Your task to perform on an android device: Open Chrome and go to settings Image 0: 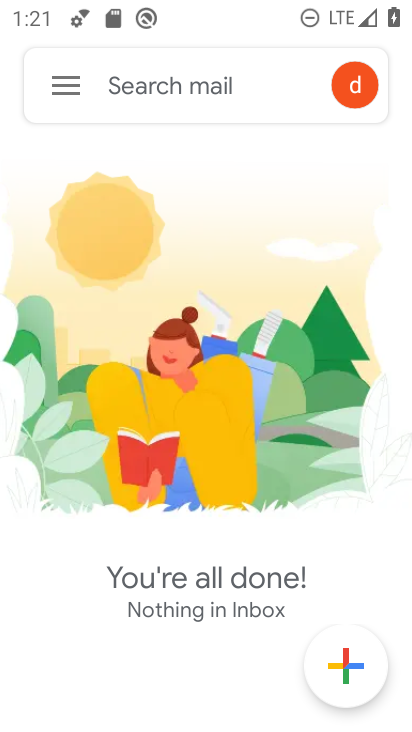
Step 0: press home button
Your task to perform on an android device: Open Chrome and go to settings Image 1: 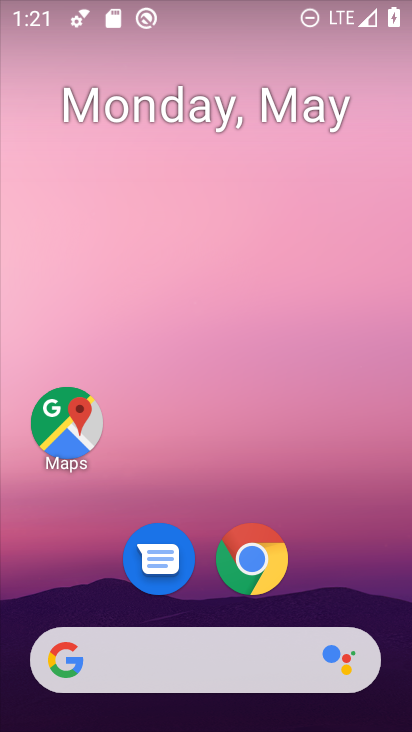
Step 1: click (245, 561)
Your task to perform on an android device: Open Chrome and go to settings Image 2: 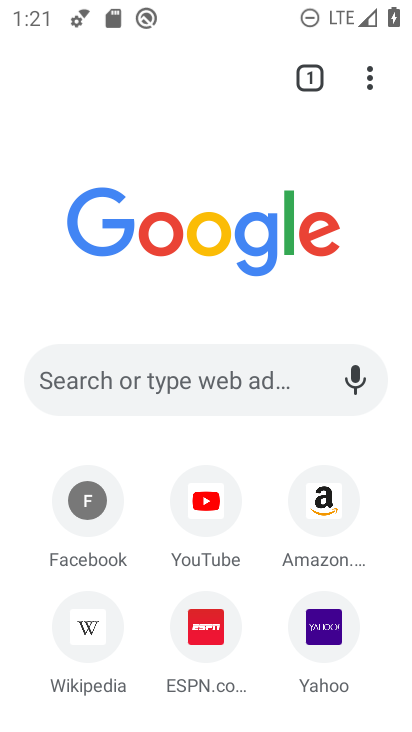
Step 2: click (364, 85)
Your task to perform on an android device: Open Chrome and go to settings Image 3: 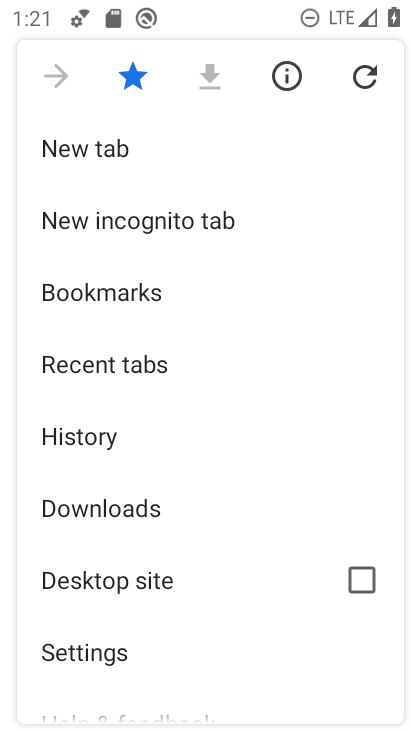
Step 3: drag from (121, 708) to (201, 481)
Your task to perform on an android device: Open Chrome and go to settings Image 4: 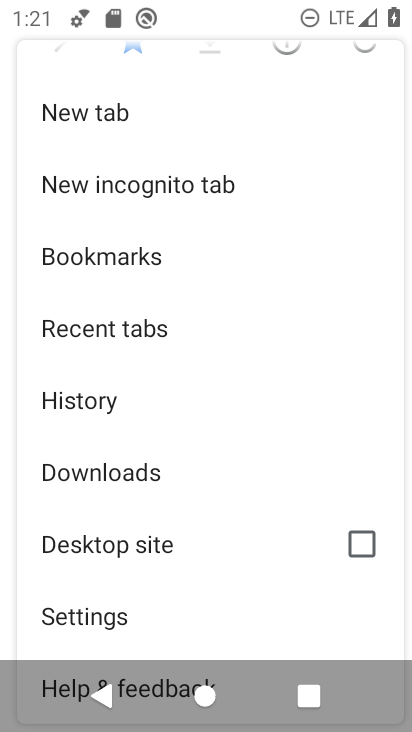
Step 4: click (114, 603)
Your task to perform on an android device: Open Chrome and go to settings Image 5: 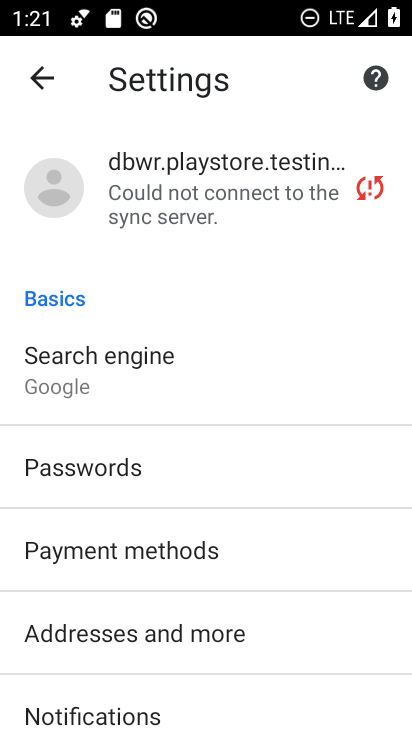
Step 5: task complete